Your task to perform on an android device: See recent photos Image 0: 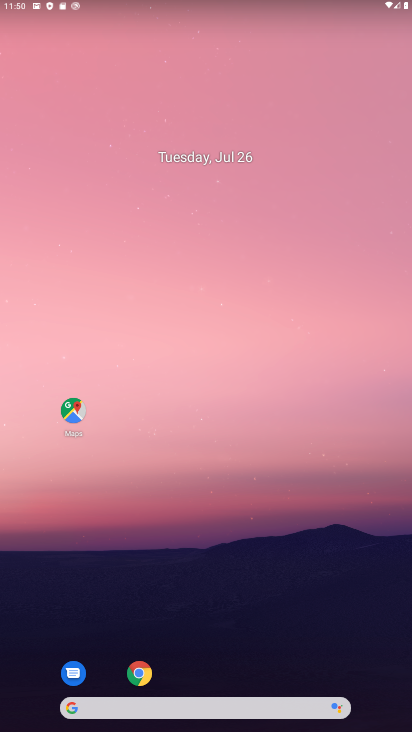
Step 0: drag from (225, 642) to (219, 366)
Your task to perform on an android device: See recent photos Image 1: 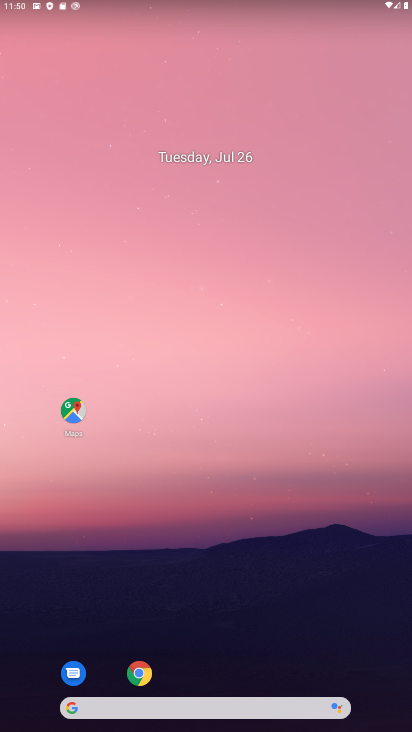
Step 1: drag from (190, 698) to (186, 249)
Your task to perform on an android device: See recent photos Image 2: 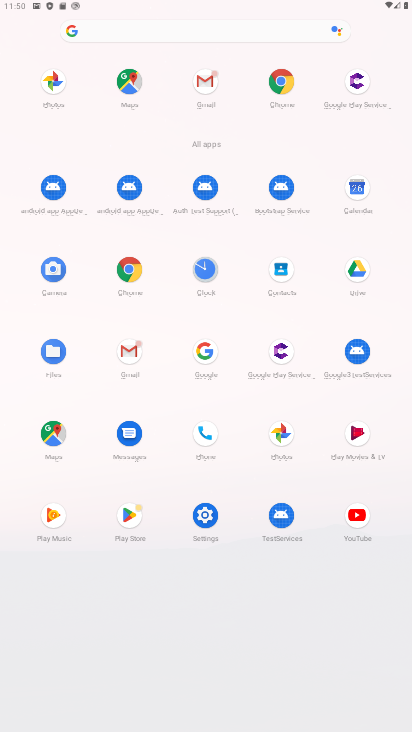
Step 2: click (281, 439)
Your task to perform on an android device: See recent photos Image 3: 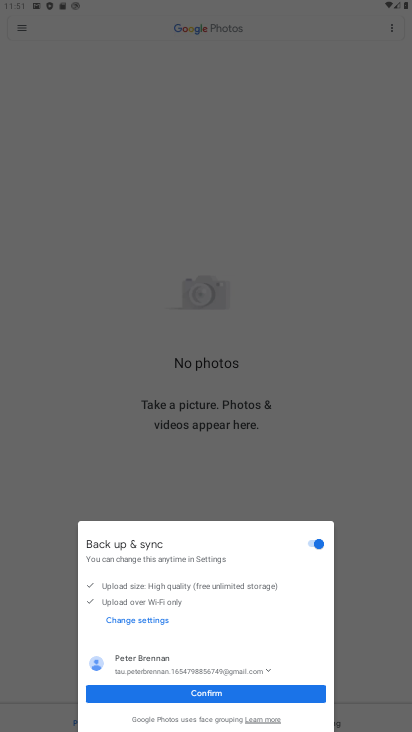
Step 3: click (225, 682)
Your task to perform on an android device: See recent photos Image 4: 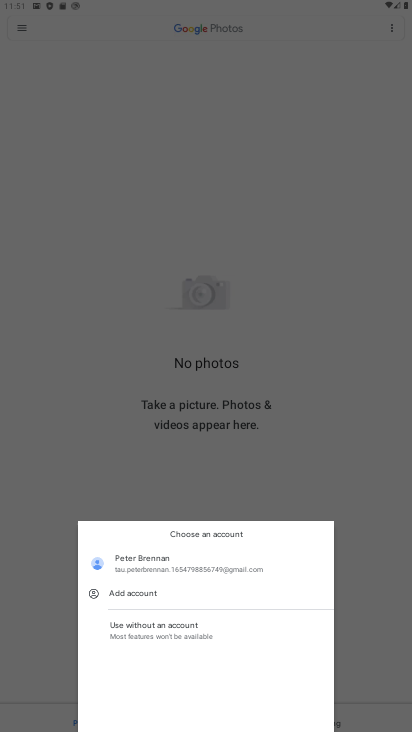
Step 4: click (176, 440)
Your task to perform on an android device: See recent photos Image 5: 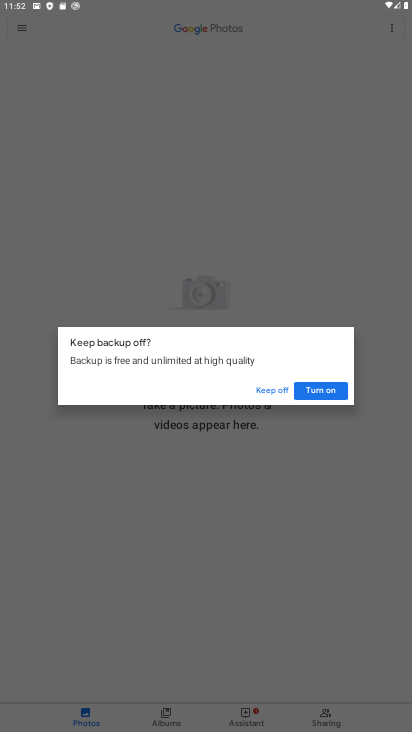
Step 5: task complete